Your task to perform on an android device: uninstall "HBO Max: Stream TV & Movies" Image 0: 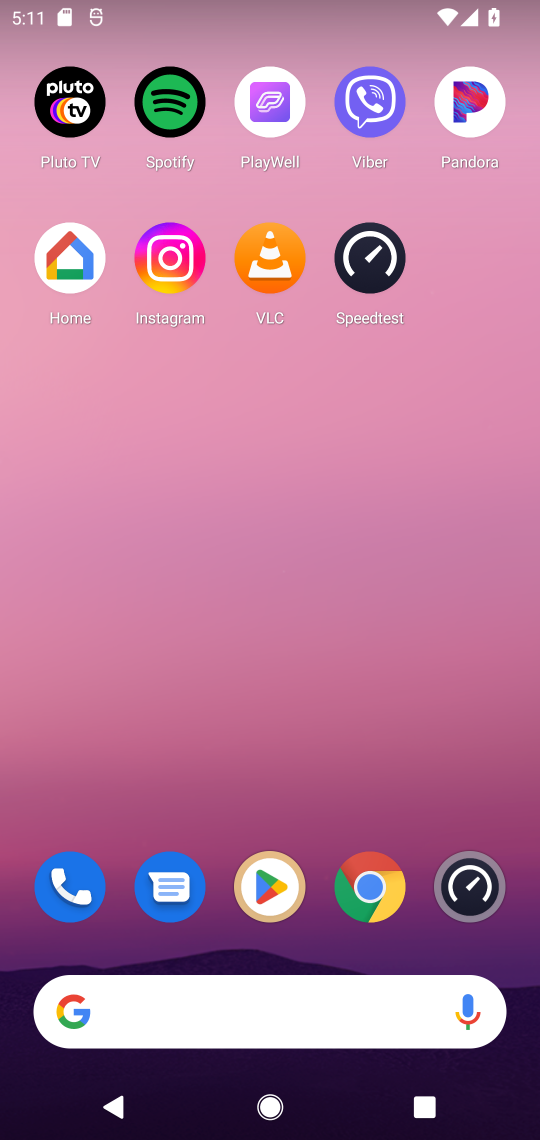
Step 0: click (279, 885)
Your task to perform on an android device: uninstall "HBO Max: Stream TV & Movies" Image 1: 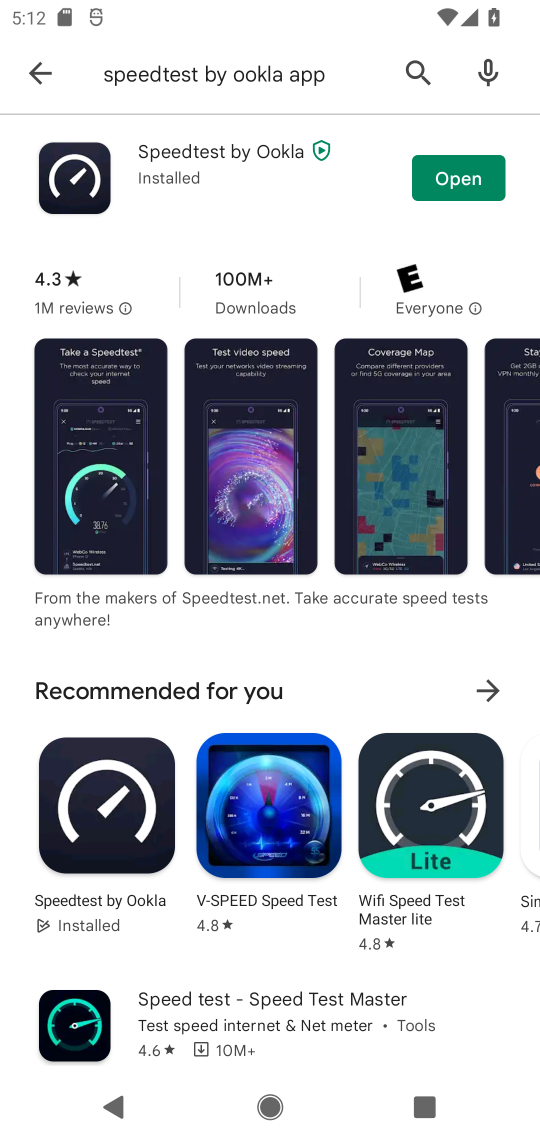
Step 1: click (411, 65)
Your task to perform on an android device: uninstall "HBO Max: Stream TV & Movies" Image 2: 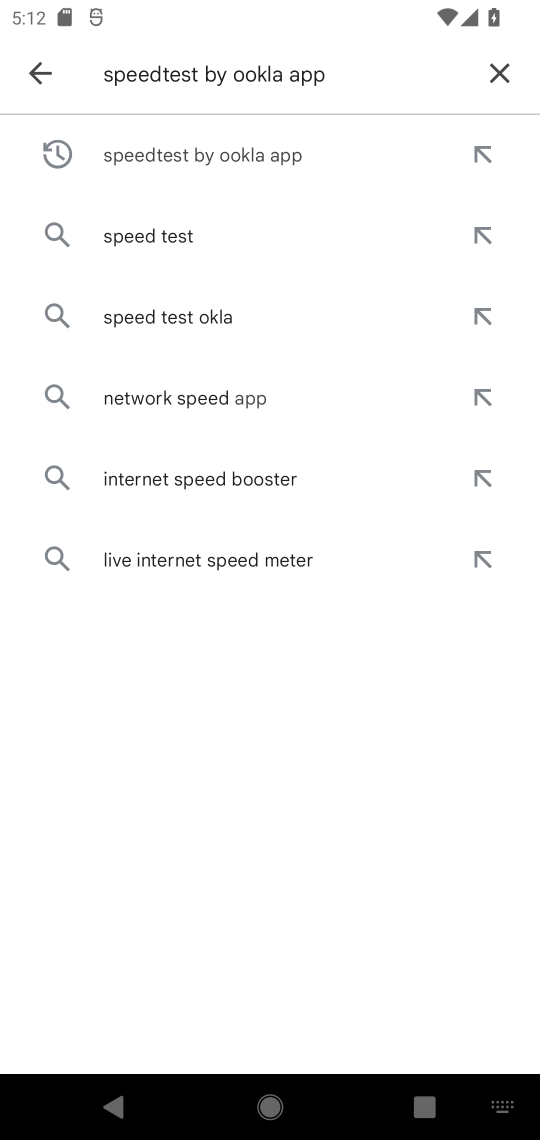
Step 2: click (500, 76)
Your task to perform on an android device: uninstall "HBO Max: Stream TV & Movies" Image 3: 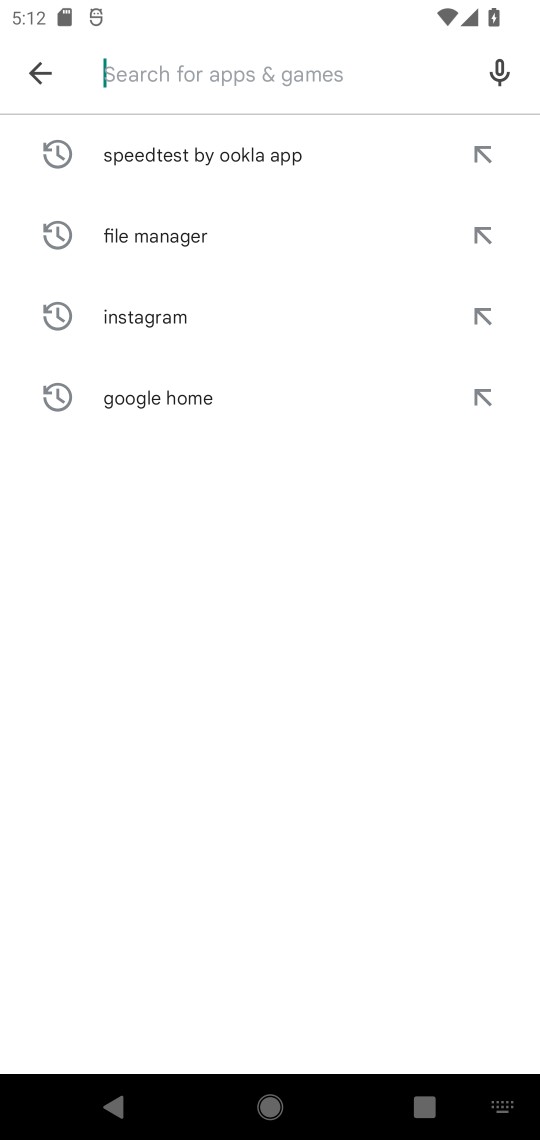
Step 3: type "HBO Max: Stream TV & Movies"
Your task to perform on an android device: uninstall "HBO Max: Stream TV & Movies" Image 4: 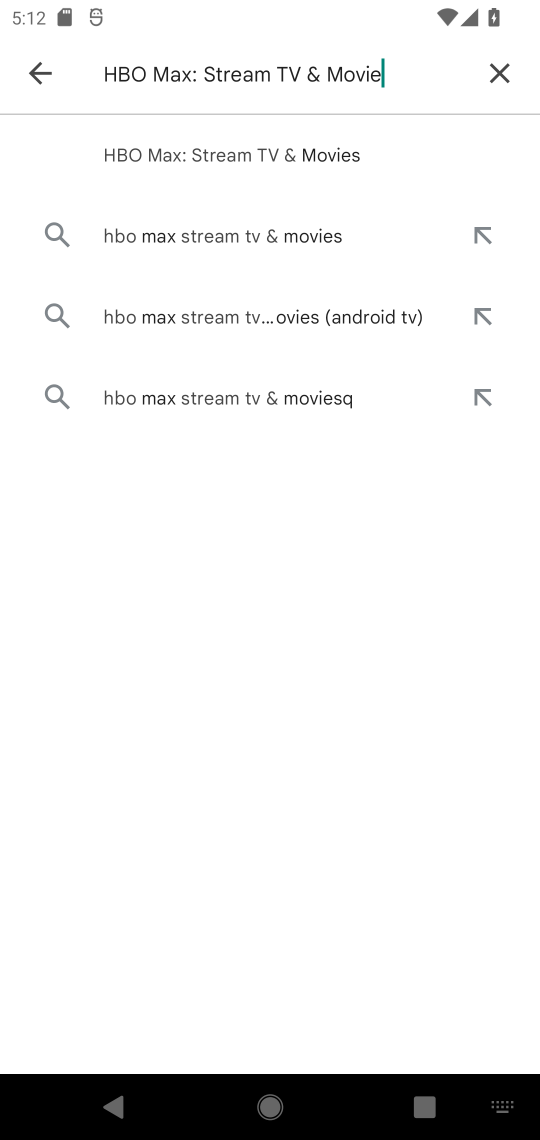
Step 4: type ""
Your task to perform on an android device: uninstall "HBO Max: Stream TV & Movies" Image 5: 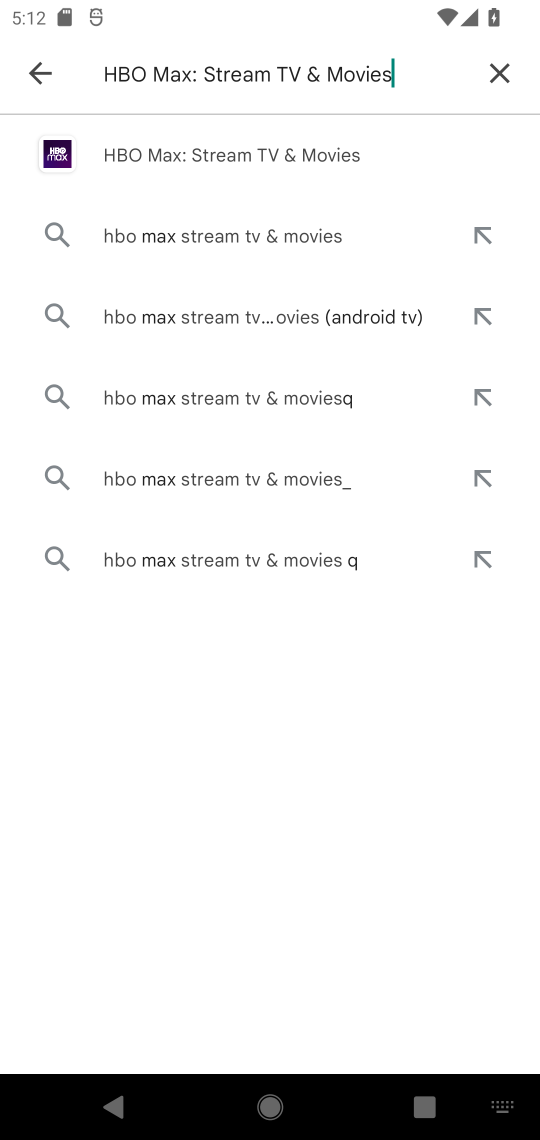
Step 5: click (195, 151)
Your task to perform on an android device: uninstall "HBO Max: Stream TV & Movies" Image 6: 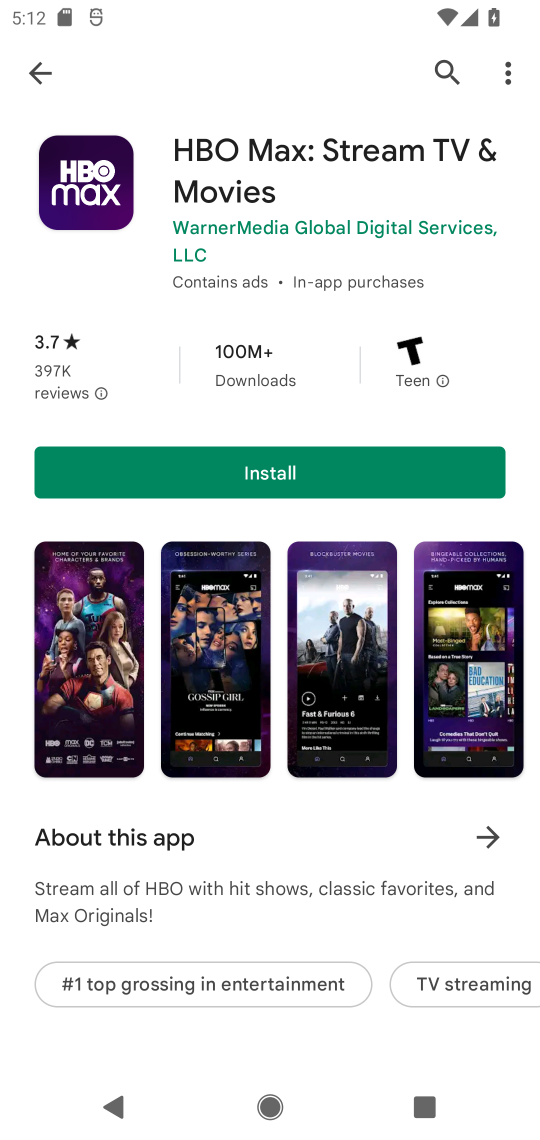
Step 6: task complete